Your task to perform on an android device: add a label to a message in the gmail app Image 0: 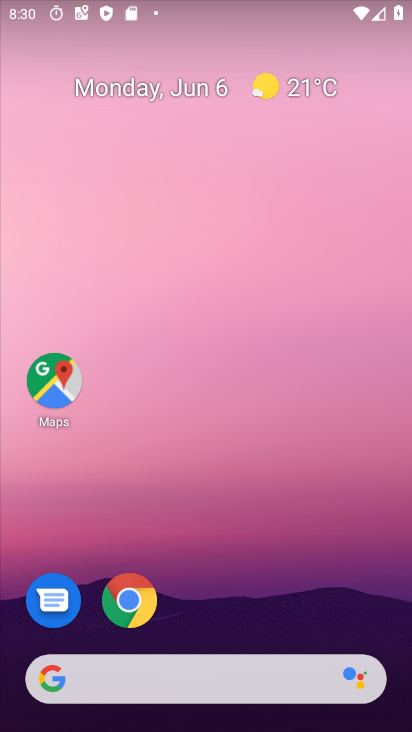
Step 0: drag from (271, 572) to (234, 25)
Your task to perform on an android device: add a label to a message in the gmail app Image 1: 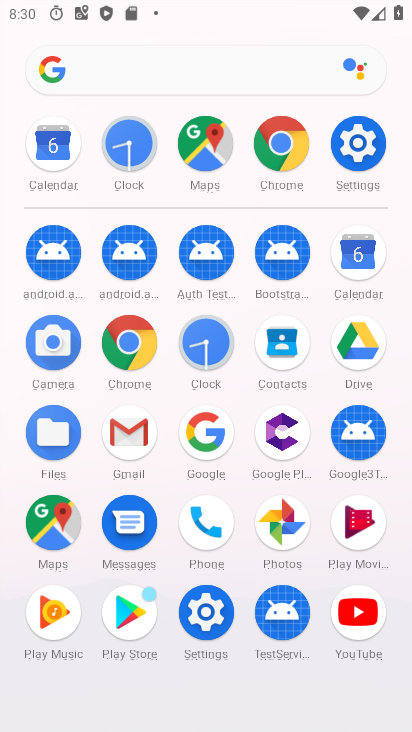
Step 1: click (127, 429)
Your task to perform on an android device: add a label to a message in the gmail app Image 2: 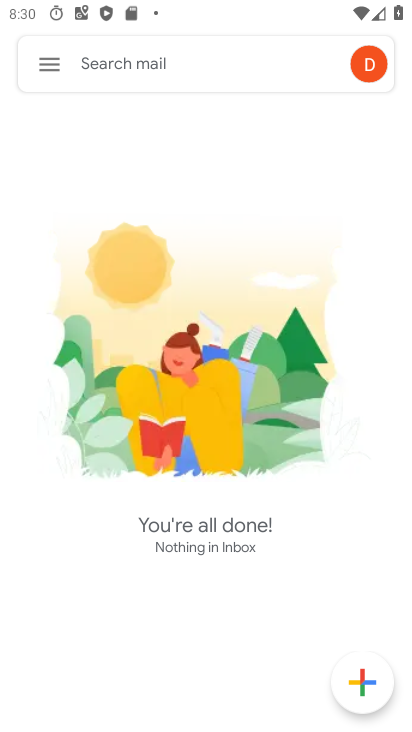
Step 2: click (43, 65)
Your task to perform on an android device: add a label to a message in the gmail app Image 3: 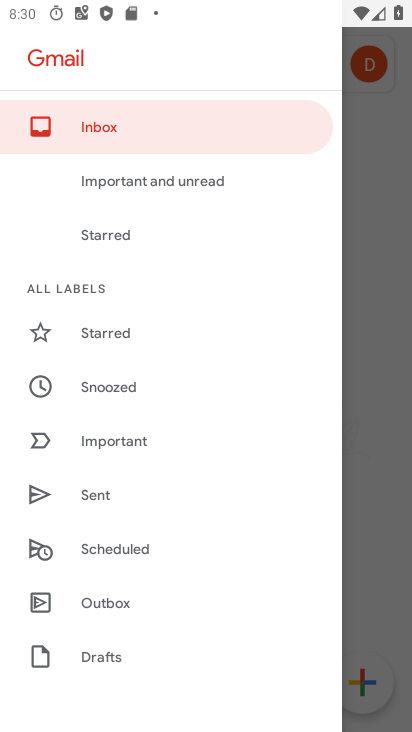
Step 3: drag from (175, 600) to (214, 260)
Your task to perform on an android device: add a label to a message in the gmail app Image 4: 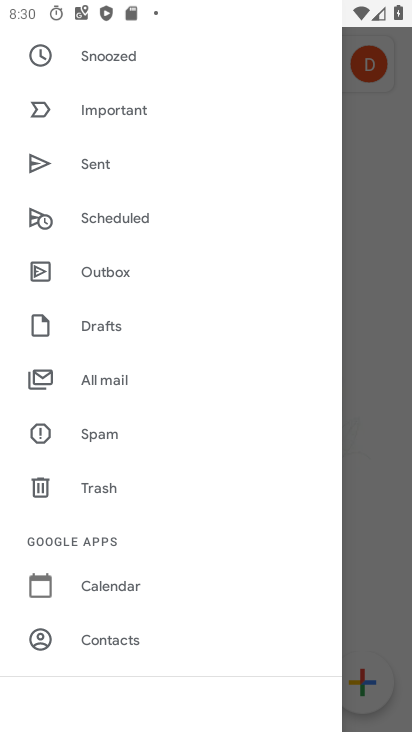
Step 4: click (91, 381)
Your task to perform on an android device: add a label to a message in the gmail app Image 5: 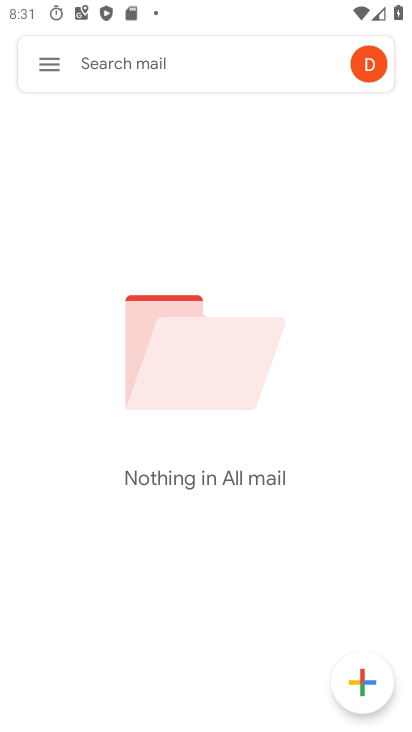
Step 5: task complete